Your task to perform on an android device: When is my next appointment? Image 0: 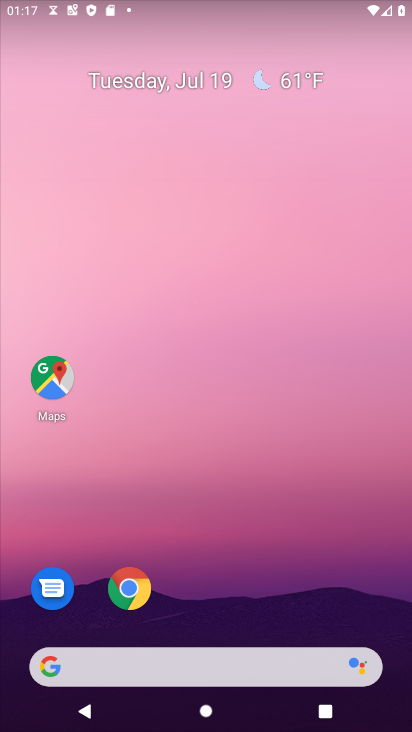
Step 0: drag from (266, 624) to (321, 80)
Your task to perform on an android device: When is my next appointment? Image 1: 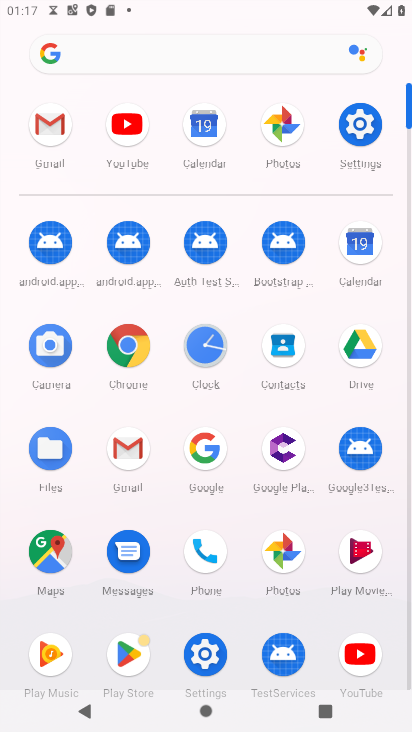
Step 1: click (370, 249)
Your task to perform on an android device: When is my next appointment? Image 2: 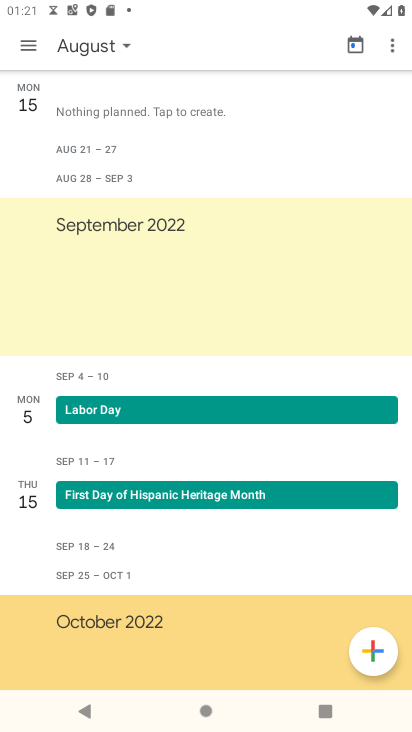
Step 2: task complete